Your task to perform on an android device: Go to internet settings Image 0: 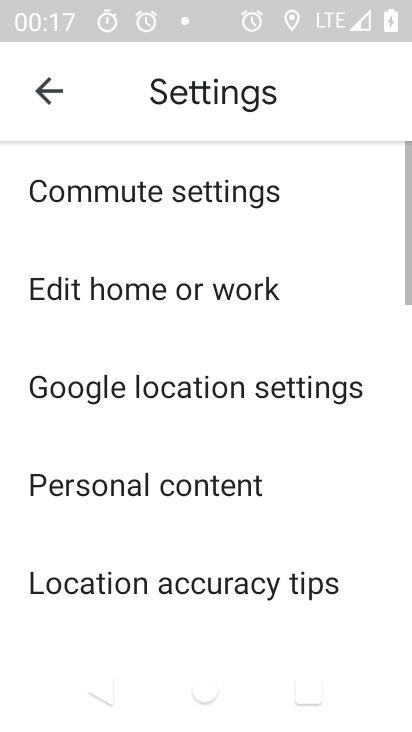
Step 0: drag from (168, 575) to (187, 0)
Your task to perform on an android device: Go to internet settings Image 1: 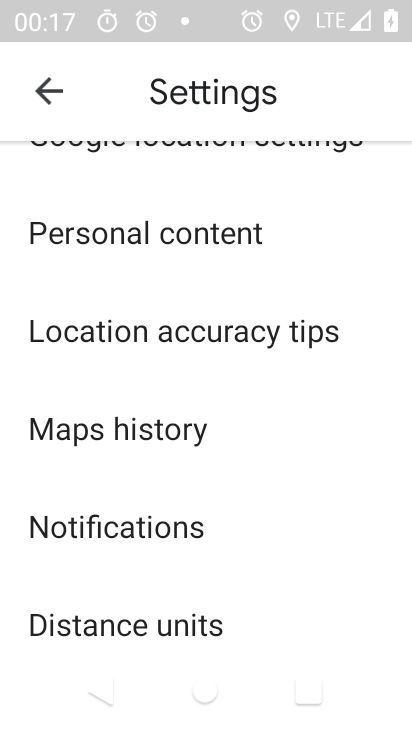
Step 1: click (50, 90)
Your task to perform on an android device: Go to internet settings Image 2: 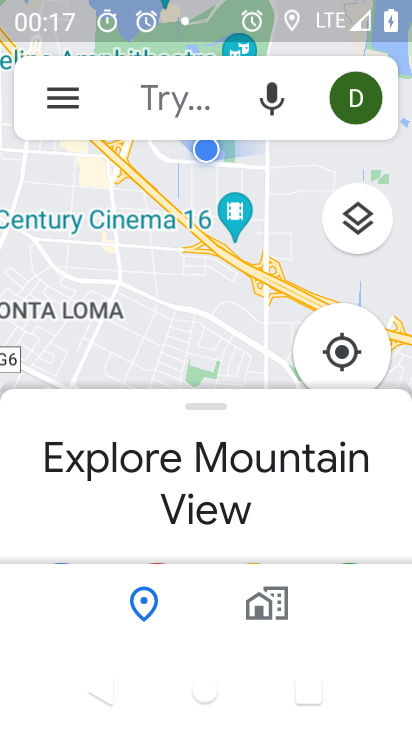
Step 2: press home button
Your task to perform on an android device: Go to internet settings Image 3: 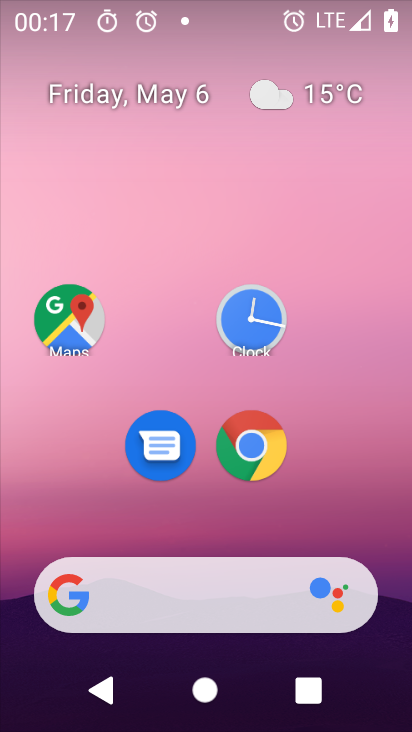
Step 3: drag from (210, 577) to (205, 77)
Your task to perform on an android device: Go to internet settings Image 4: 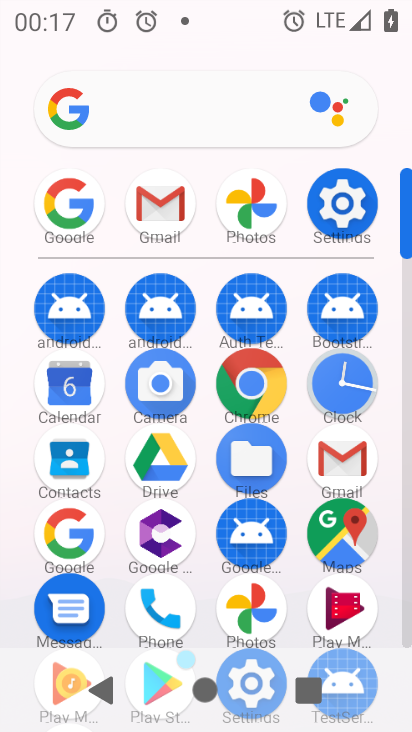
Step 4: click (329, 206)
Your task to perform on an android device: Go to internet settings Image 5: 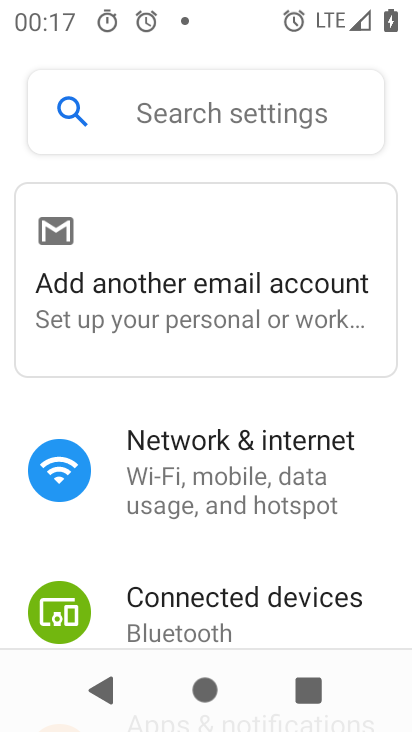
Step 5: click (251, 462)
Your task to perform on an android device: Go to internet settings Image 6: 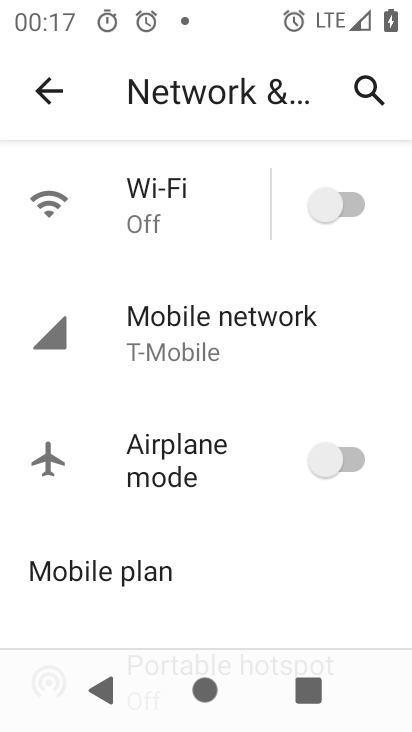
Step 6: task complete